Your task to perform on an android device: Show me popular videos on Youtube Image 0: 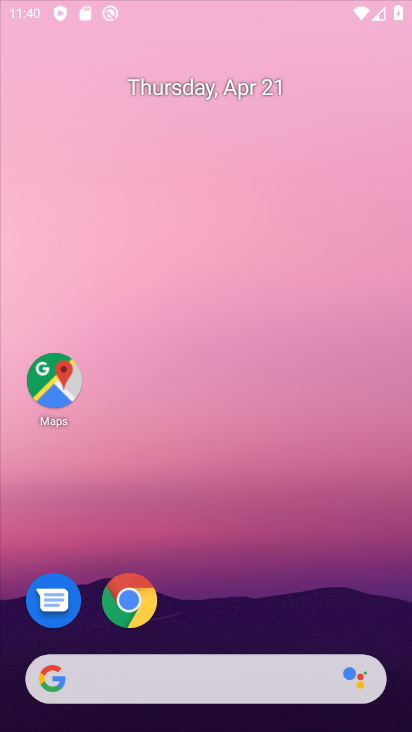
Step 0: drag from (246, 357) to (276, 132)
Your task to perform on an android device: Show me popular videos on Youtube Image 1: 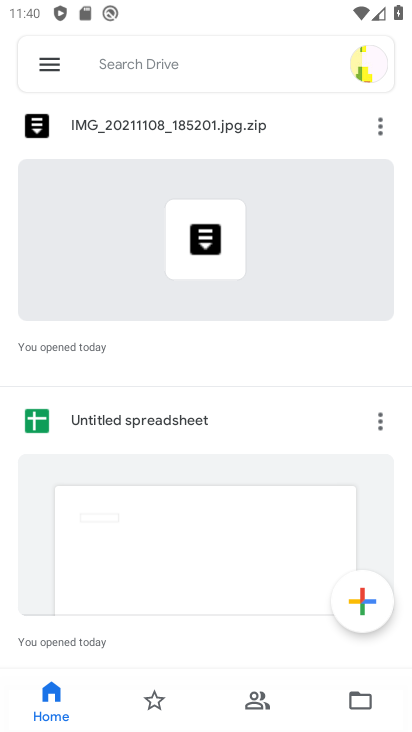
Step 1: press back button
Your task to perform on an android device: Show me popular videos on Youtube Image 2: 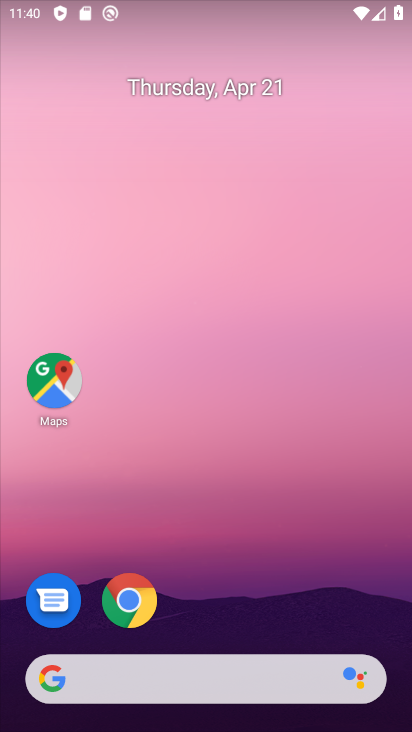
Step 2: drag from (191, 638) to (281, 88)
Your task to perform on an android device: Show me popular videos on Youtube Image 3: 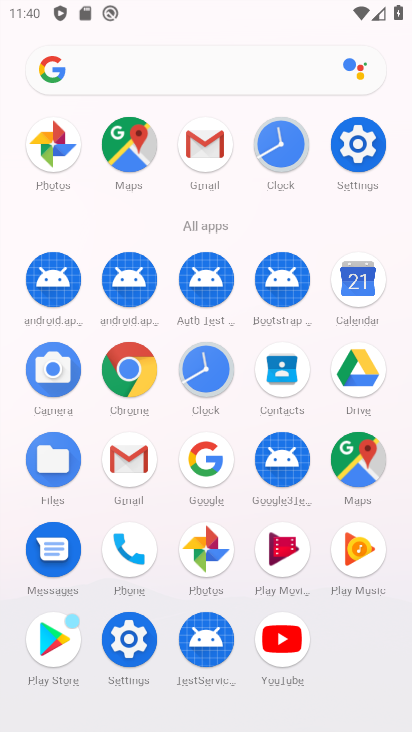
Step 3: click (283, 642)
Your task to perform on an android device: Show me popular videos on Youtube Image 4: 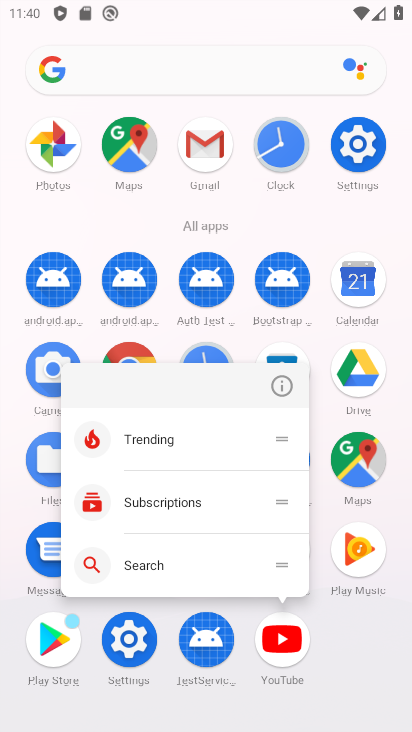
Step 4: click (288, 646)
Your task to perform on an android device: Show me popular videos on Youtube Image 5: 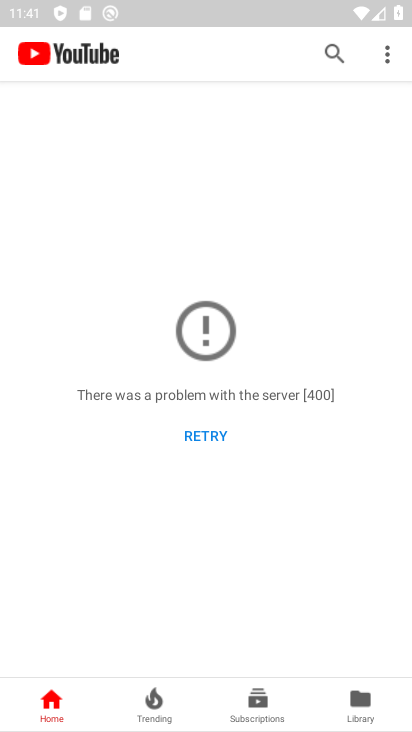
Step 5: click (152, 703)
Your task to perform on an android device: Show me popular videos on Youtube Image 6: 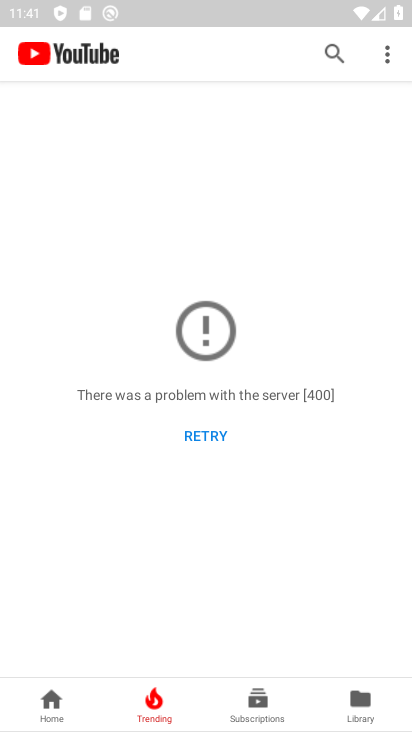
Step 6: task complete